Your task to perform on an android device: Open calendar and show me the second week of next month Image 0: 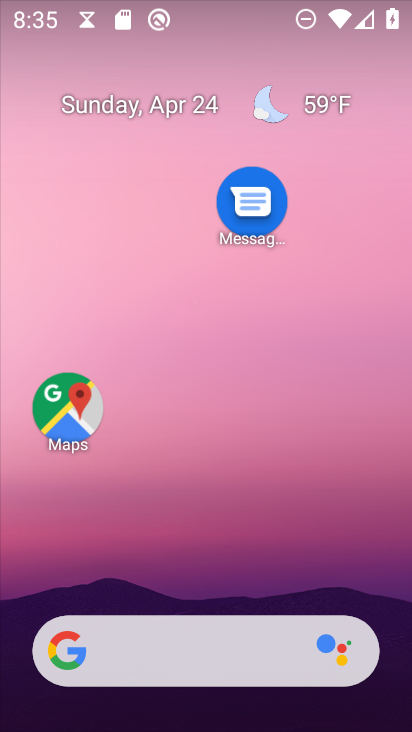
Step 0: press home button
Your task to perform on an android device: Open calendar and show me the second week of next month Image 1: 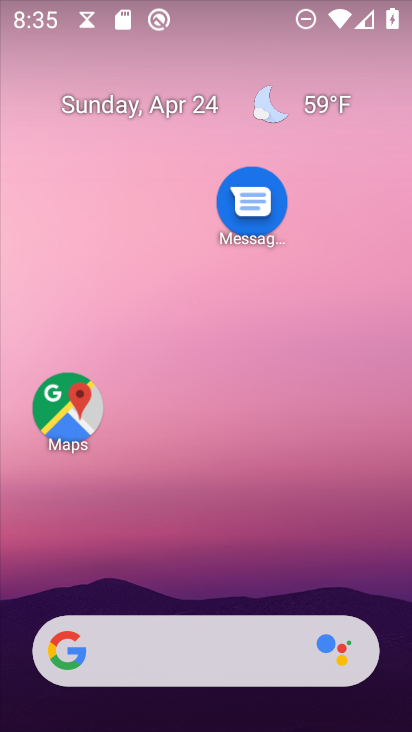
Step 1: drag from (190, 609) to (278, 182)
Your task to perform on an android device: Open calendar and show me the second week of next month Image 2: 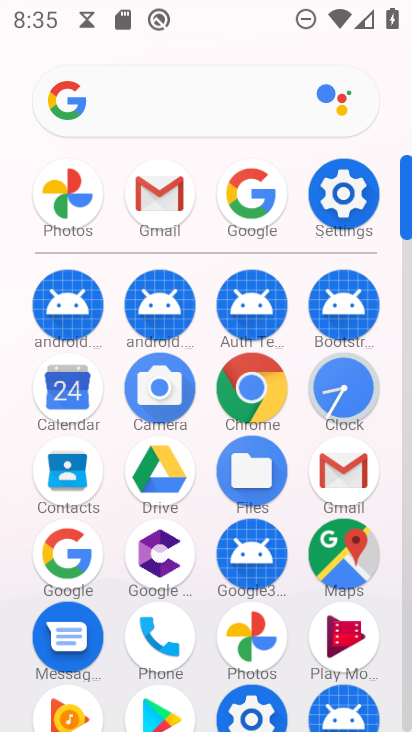
Step 2: click (69, 383)
Your task to perform on an android device: Open calendar and show me the second week of next month Image 3: 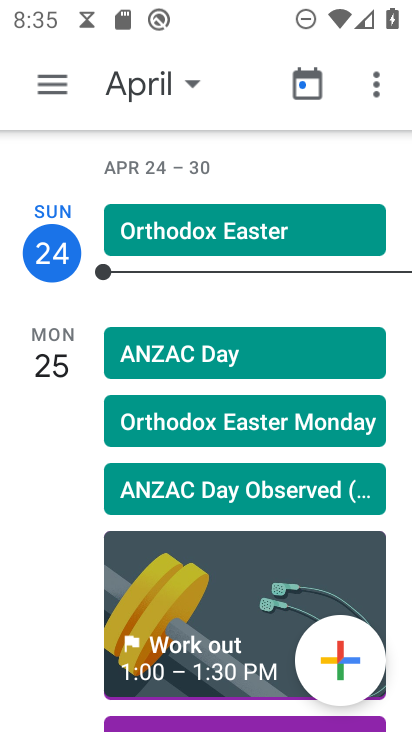
Step 3: click (151, 89)
Your task to perform on an android device: Open calendar and show me the second week of next month Image 4: 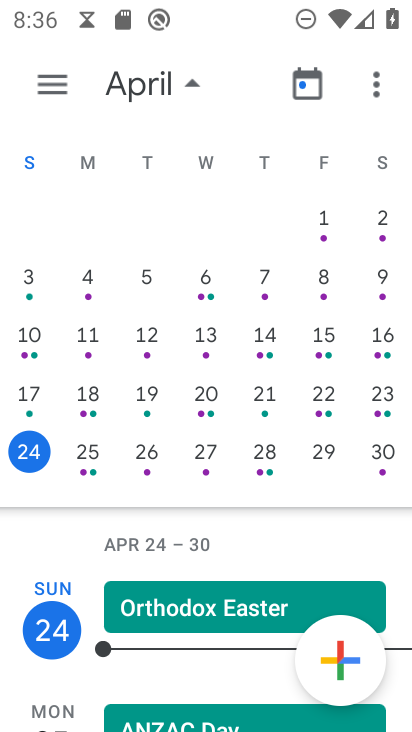
Step 4: drag from (367, 403) to (8, 288)
Your task to perform on an android device: Open calendar and show me the second week of next month Image 5: 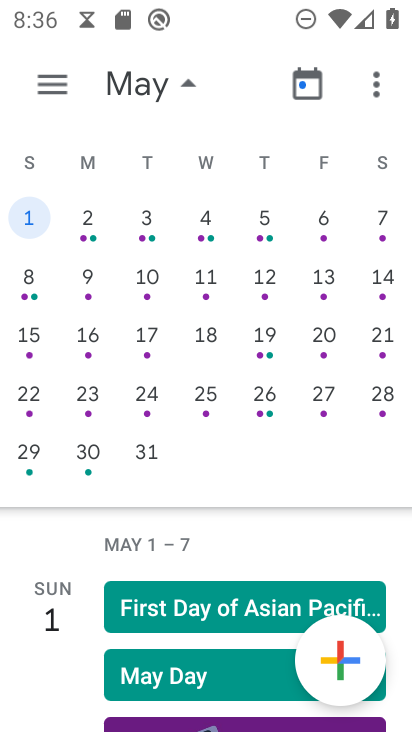
Step 5: click (29, 275)
Your task to perform on an android device: Open calendar and show me the second week of next month Image 6: 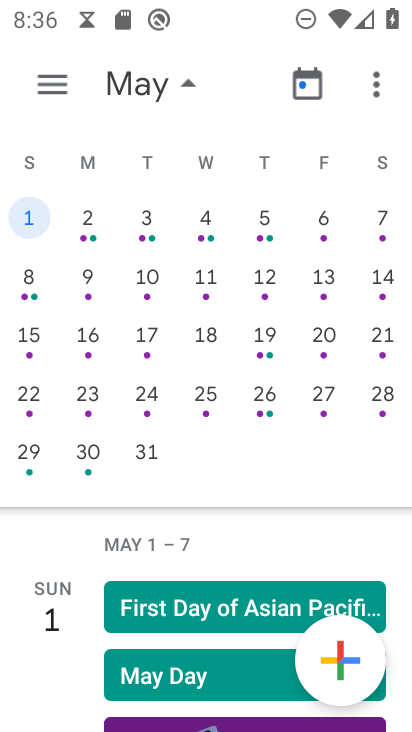
Step 6: click (38, 278)
Your task to perform on an android device: Open calendar and show me the second week of next month Image 7: 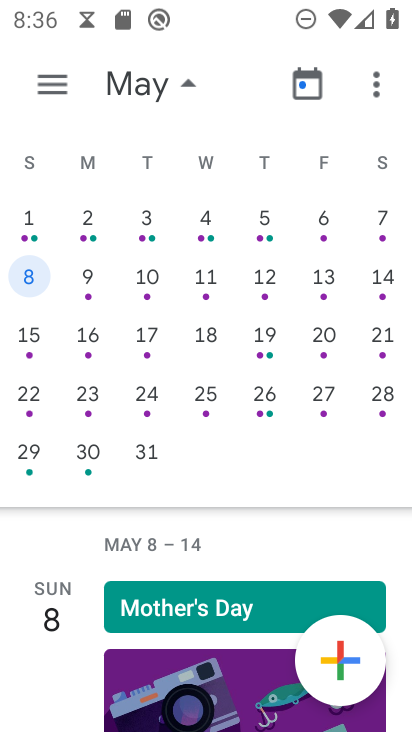
Step 7: click (38, 85)
Your task to perform on an android device: Open calendar and show me the second week of next month Image 8: 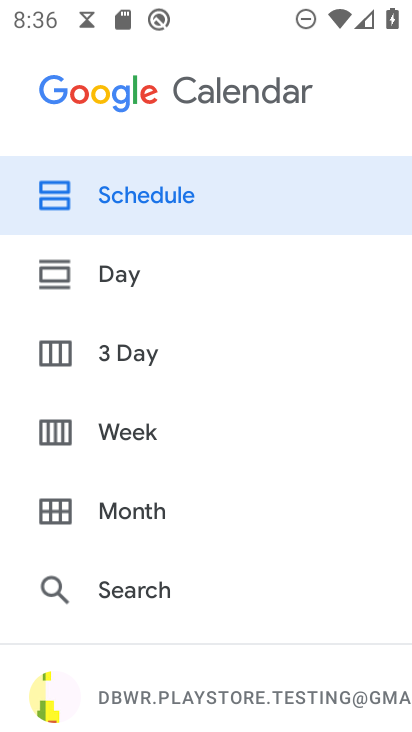
Step 8: click (145, 442)
Your task to perform on an android device: Open calendar and show me the second week of next month Image 9: 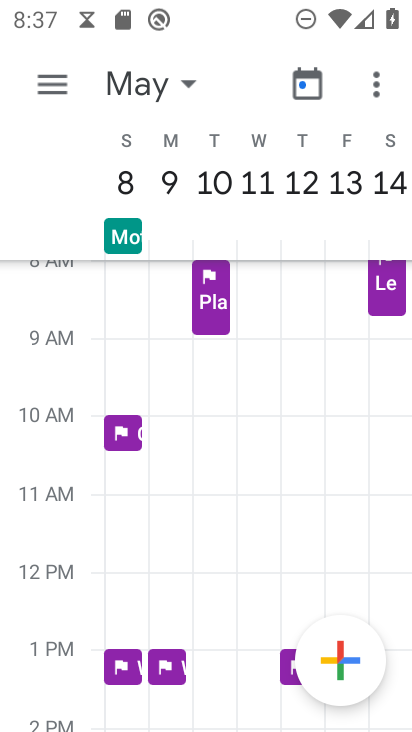
Step 9: task complete